Your task to perform on an android device: Search for sushi restaurants on Maps Image 0: 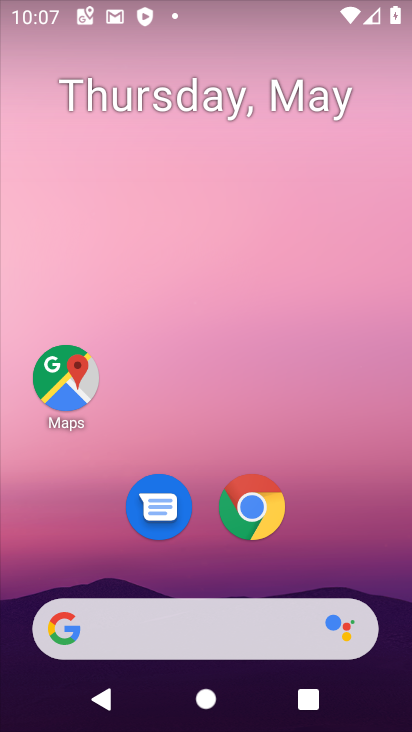
Step 0: click (56, 404)
Your task to perform on an android device: Search for sushi restaurants on Maps Image 1: 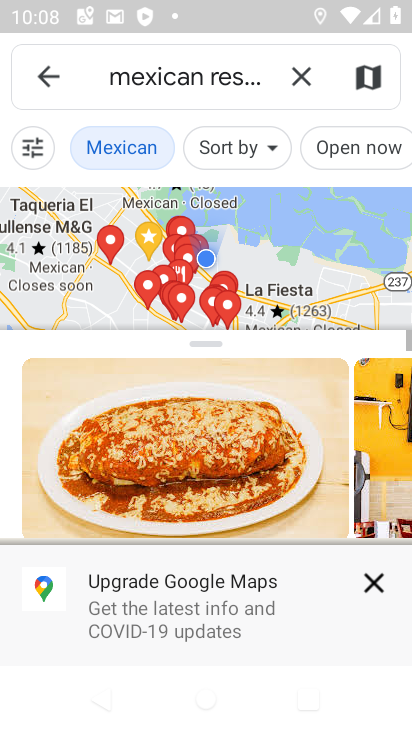
Step 1: click (301, 77)
Your task to perform on an android device: Search for sushi restaurants on Maps Image 2: 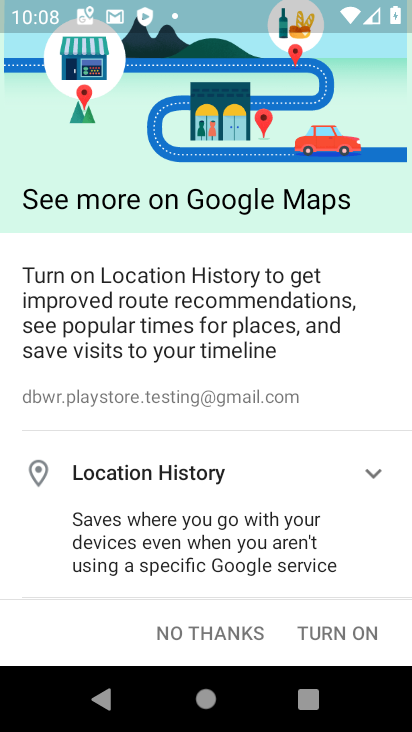
Step 2: click (201, 640)
Your task to perform on an android device: Search for sushi restaurants on Maps Image 3: 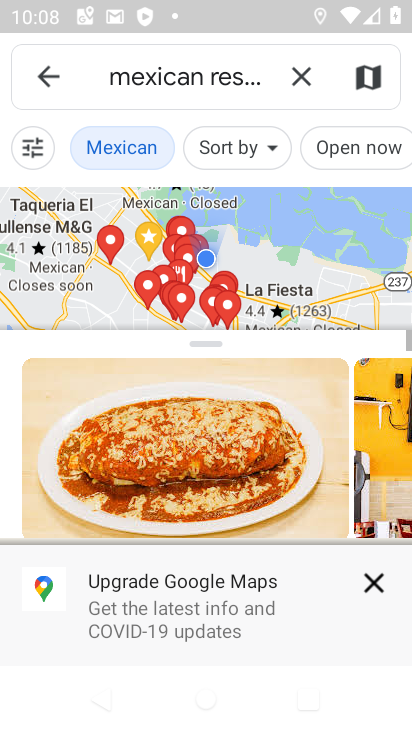
Step 3: click (135, 89)
Your task to perform on an android device: Search for sushi restaurants on Maps Image 4: 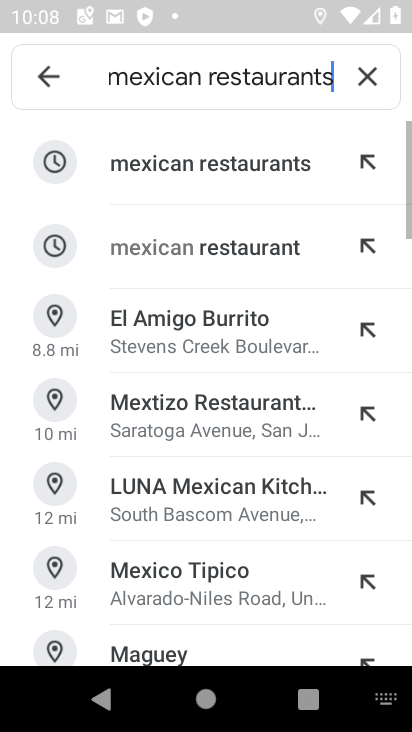
Step 4: click (371, 80)
Your task to perform on an android device: Search for sushi restaurants on Maps Image 5: 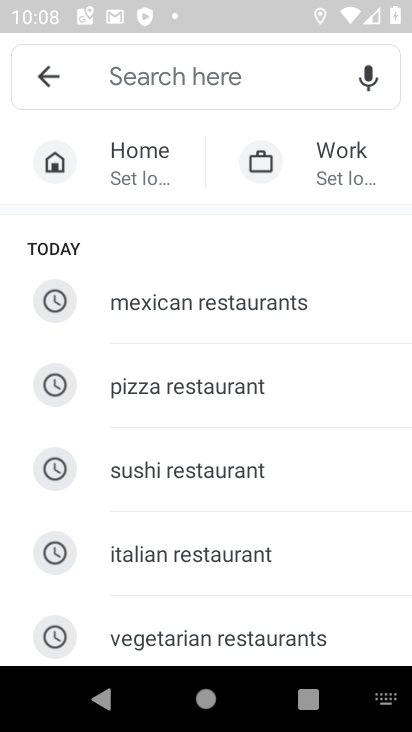
Step 5: type "sushi restaurants"
Your task to perform on an android device: Search for sushi restaurants on Maps Image 6: 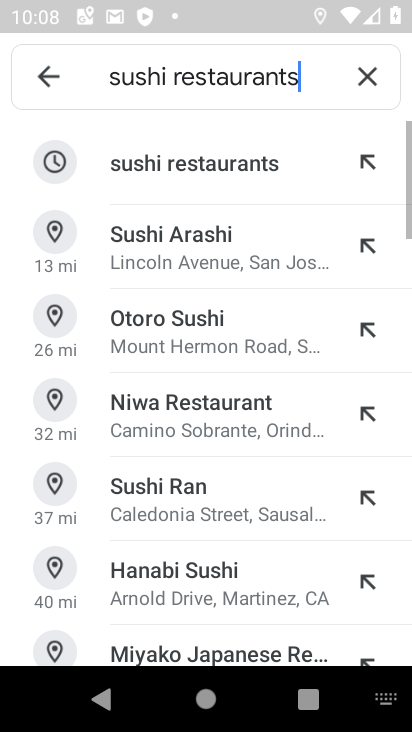
Step 6: click (221, 173)
Your task to perform on an android device: Search for sushi restaurants on Maps Image 7: 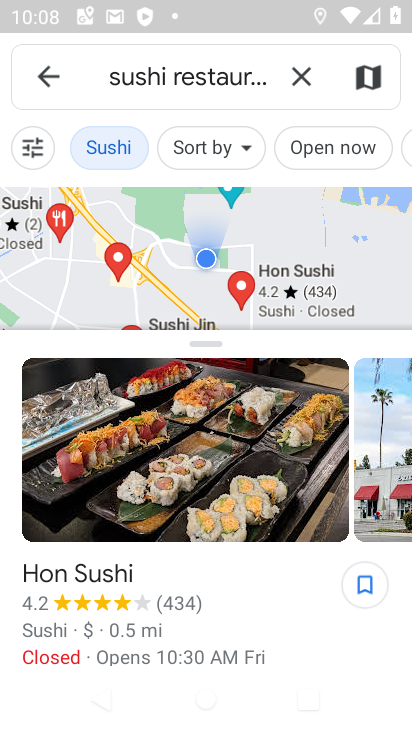
Step 7: task complete